Your task to perform on an android device: turn on translation in the chrome app Image 0: 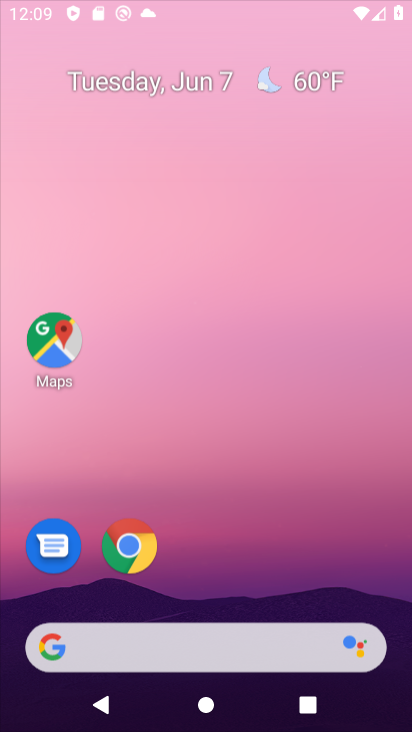
Step 0: drag from (249, 554) to (363, 51)
Your task to perform on an android device: turn on translation in the chrome app Image 1: 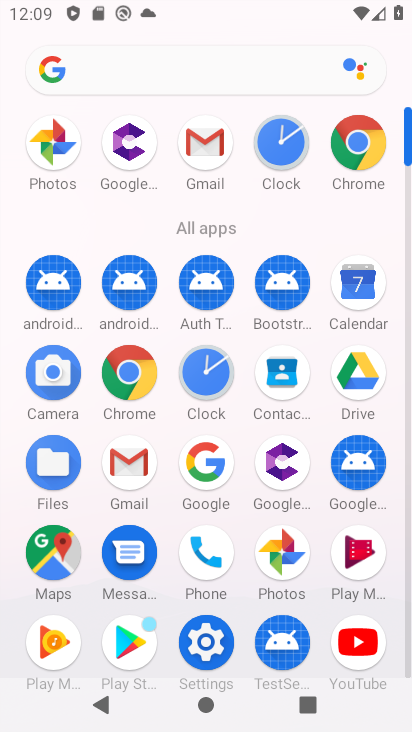
Step 1: click (371, 123)
Your task to perform on an android device: turn on translation in the chrome app Image 2: 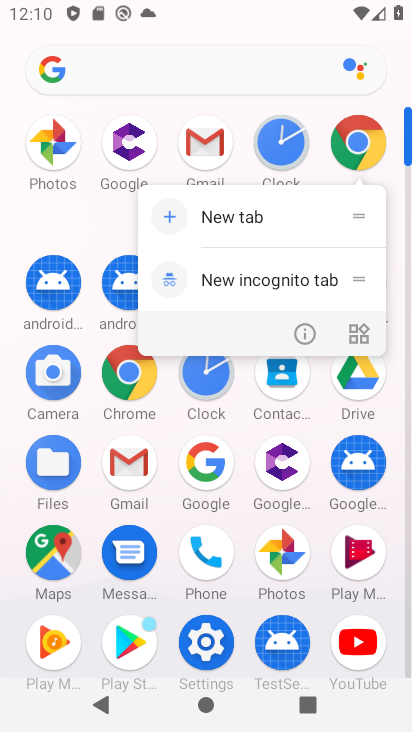
Step 2: click (246, 201)
Your task to perform on an android device: turn on translation in the chrome app Image 3: 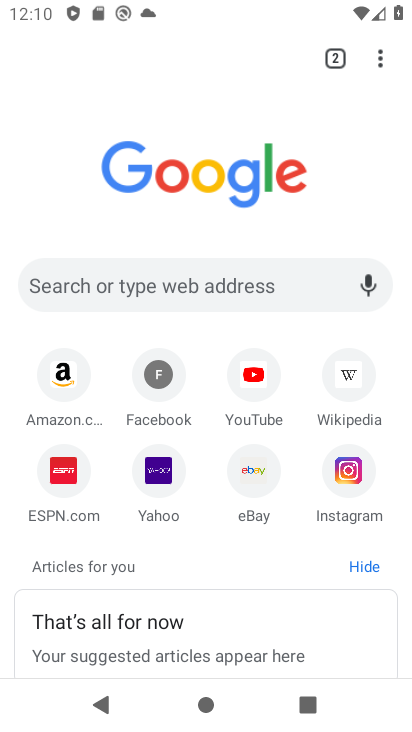
Step 3: drag from (378, 47) to (204, 492)
Your task to perform on an android device: turn on translation in the chrome app Image 4: 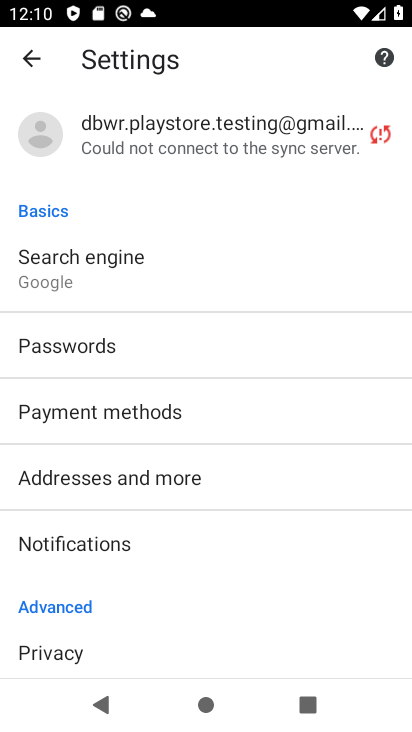
Step 4: click (106, 269)
Your task to perform on an android device: turn on translation in the chrome app Image 5: 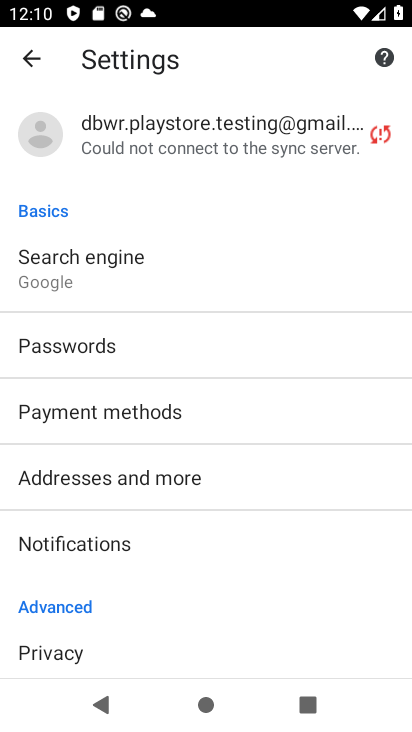
Step 5: drag from (181, 413) to (287, 85)
Your task to perform on an android device: turn on translation in the chrome app Image 6: 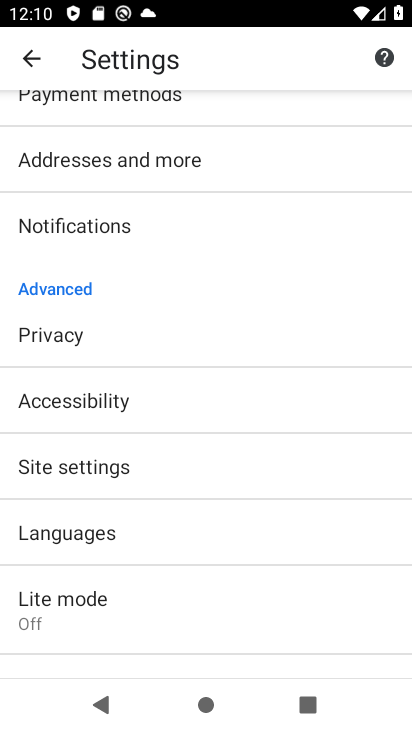
Step 6: drag from (230, 446) to (323, 95)
Your task to perform on an android device: turn on translation in the chrome app Image 7: 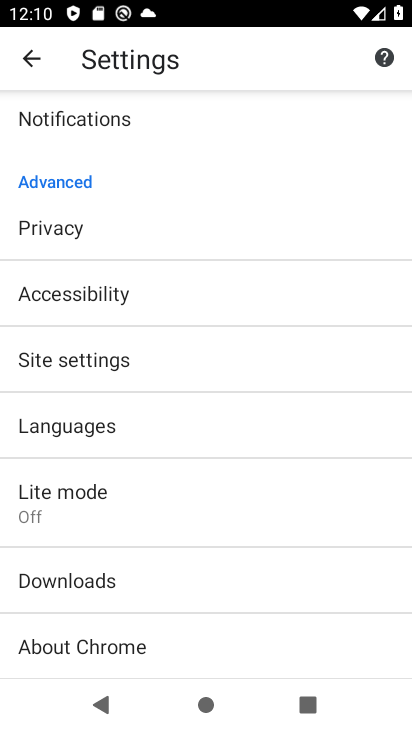
Step 7: click (105, 529)
Your task to perform on an android device: turn on translation in the chrome app Image 8: 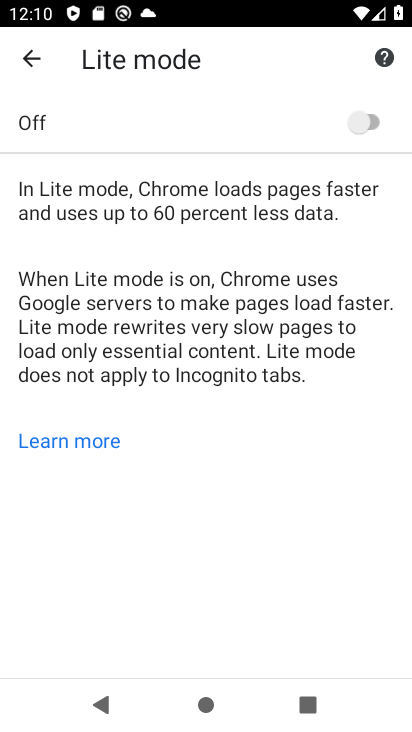
Step 8: click (134, 435)
Your task to perform on an android device: turn on translation in the chrome app Image 9: 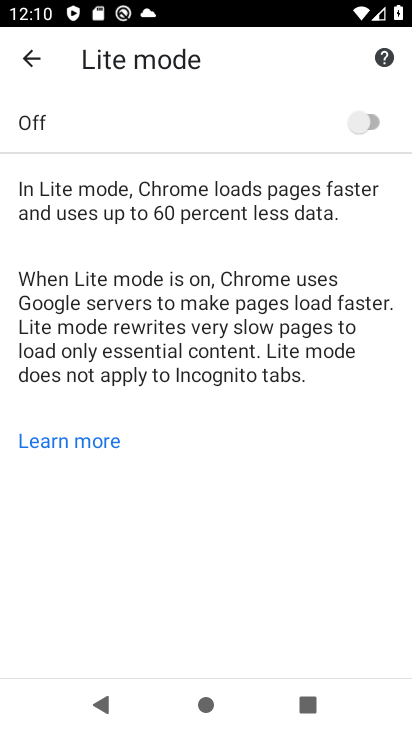
Step 9: click (32, 51)
Your task to perform on an android device: turn on translation in the chrome app Image 10: 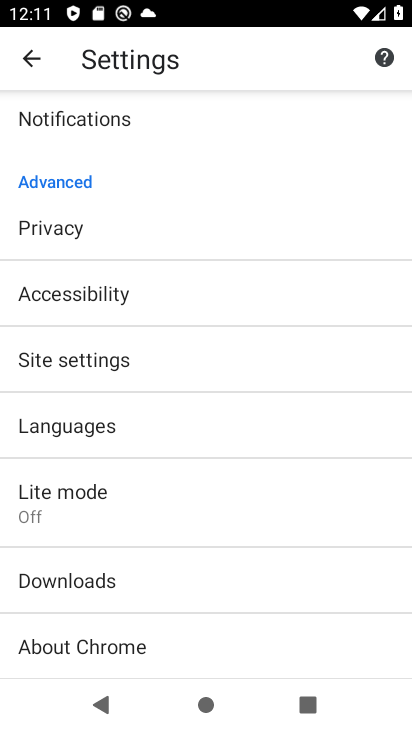
Step 10: click (108, 453)
Your task to perform on an android device: turn on translation in the chrome app Image 11: 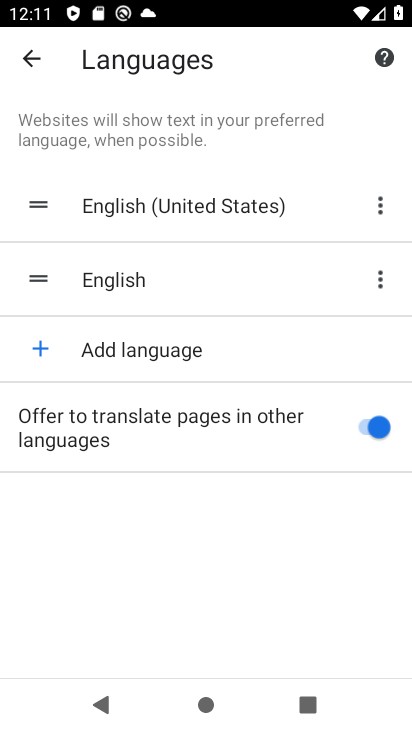
Step 11: task complete